Your task to perform on an android device: clear all cookies in the chrome app Image 0: 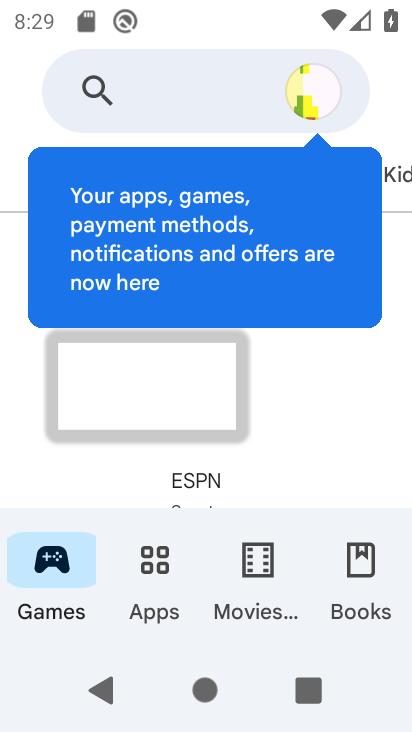
Step 0: press home button
Your task to perform on an android device: clear all cookies in the chrome app Image 1: 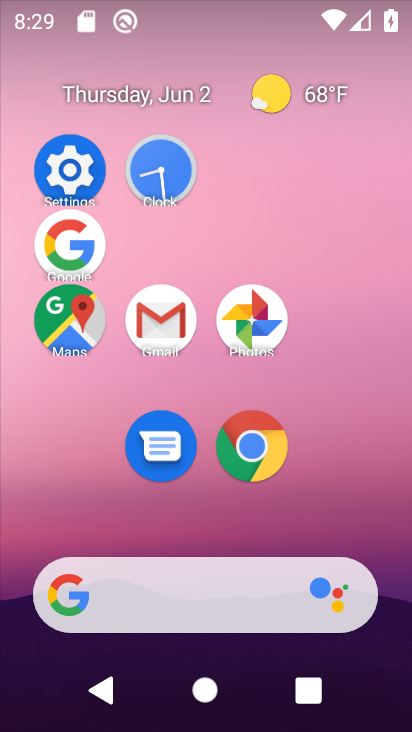
Step 1: click (246, 458)
Your task to perform on an android device: clear all cookies in the chrome app Image 2: 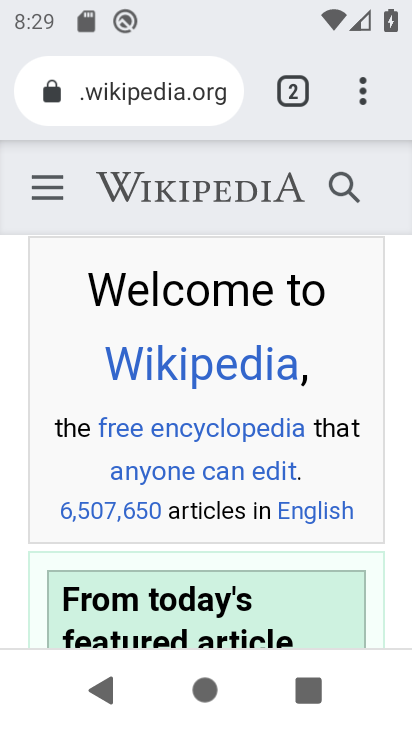
Step 2: click (362, 92)
Your task to perform on an android device: clear all cookies in the chrome app Image 3: 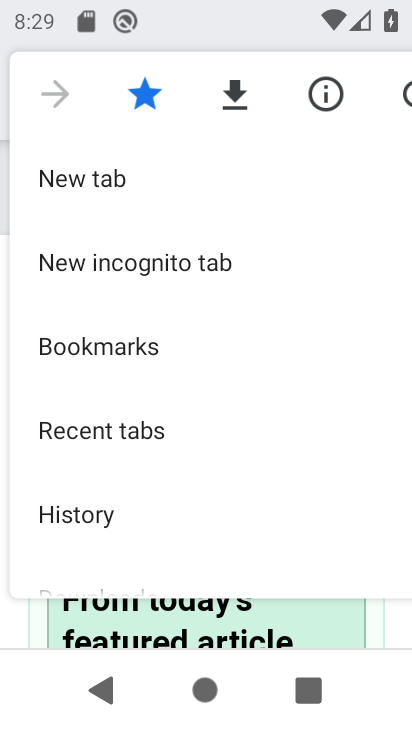
Step 3: drag from (153, 470) to (129, 180)
Your task to perform on an android device: clear all cookies in the chrome app Image 4: 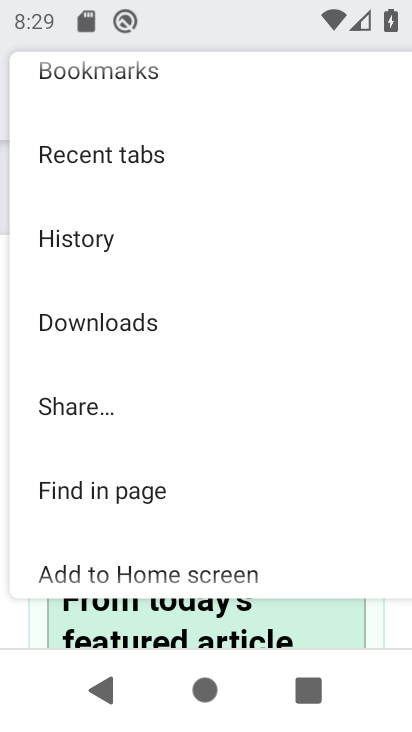
Step 4: drag from (178, 450) to (183, 144)
Your task to perform on an android device: clear all cookies in the chrome app Image 5: 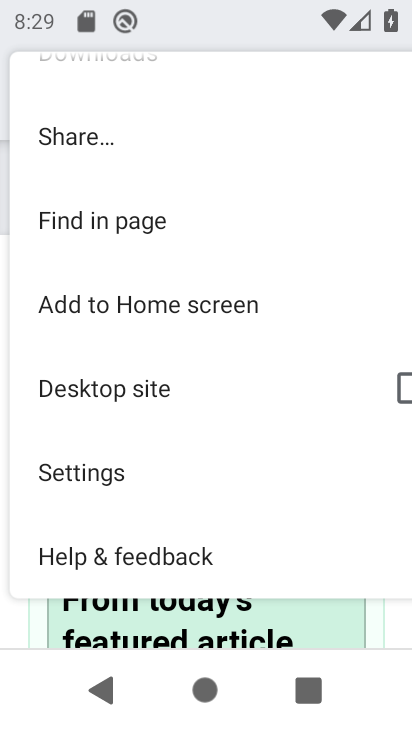
Step 5: click (183, 467)
Your task to perform on an android device: clear all cookies in the chrome app Image 6: 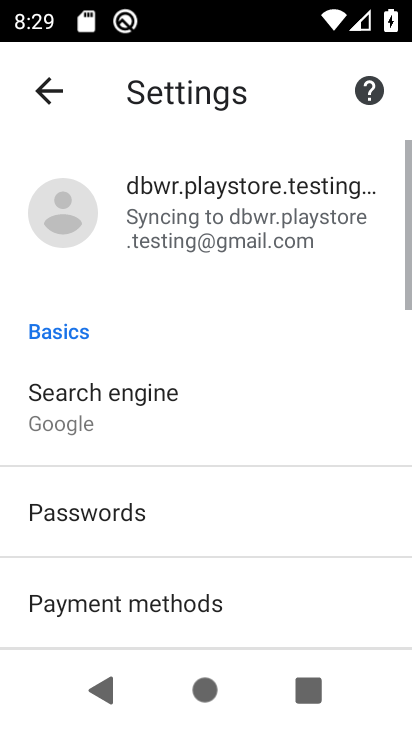
Step 6: drag from (182, 468) to (209, 128)
Your task to perform on an android device: clear all cookies in the chrome app Image 7: 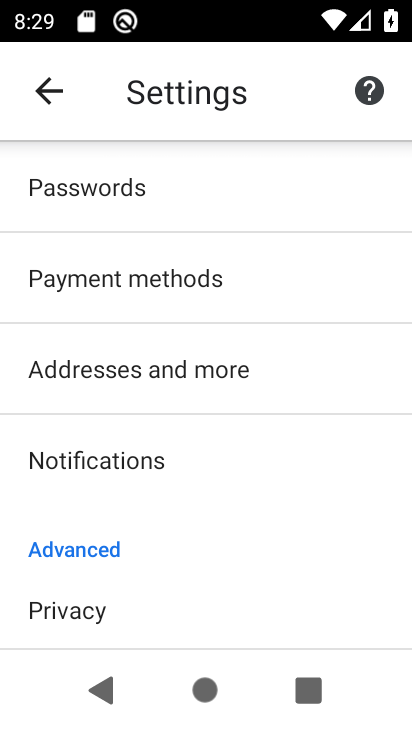
Step 7: drag from (205, 495) to (216, 218)
Your task to perform on an android device: clear all cookies in the chrome app Image 8: 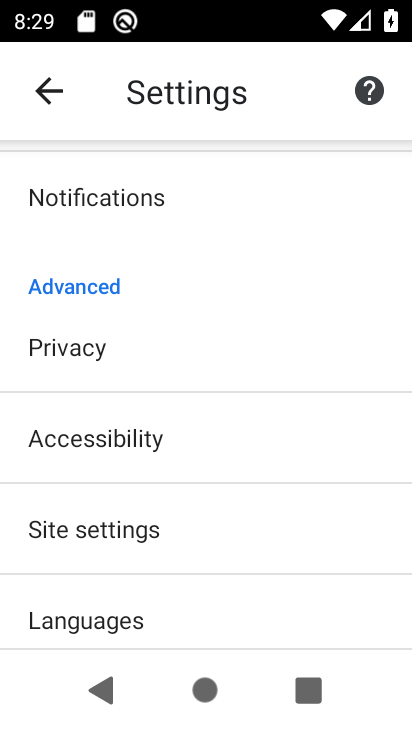
Step 8: click (176, 324)
Your task to perform on an android device: clear all cookies in the chrome app Image 9: 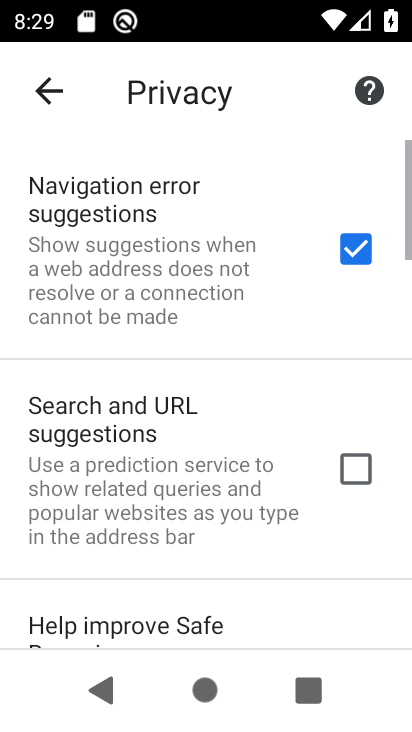
Step 9: drag from (203, 490) to (250, 138)
Your task to perform on an android device: clear all cookies in the chrome app Image 10: 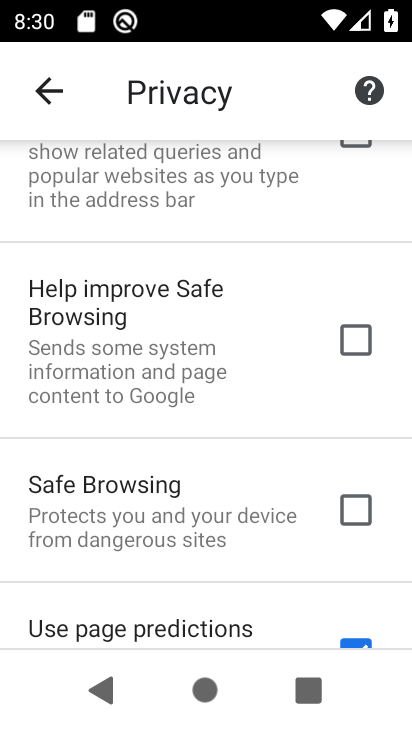
Step 10: drag from (252, 559) to (276, 184)
Your task to perform on an android device: clear all cookies in the chrome app Image 11: 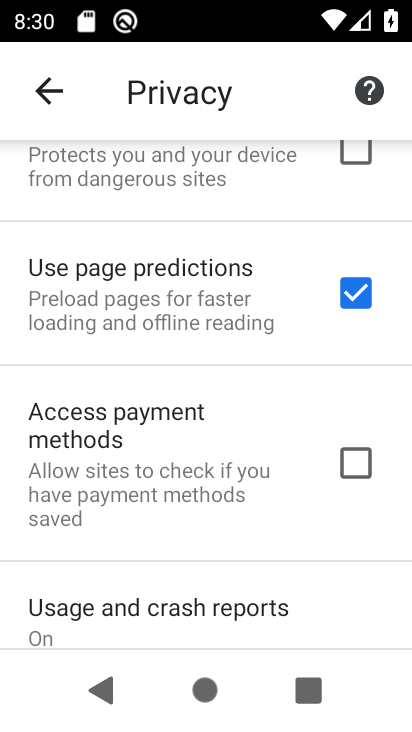
Step 11: drag from (276, 534) to (256, 170)
Your task to perform on an android device: clear all cookies in the chrome app Image 12: 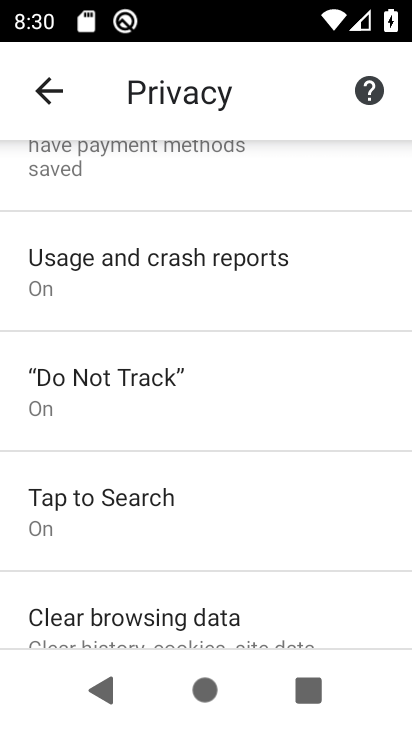
Step 12: drag from (246, 555) to (232, 216)
Your task to perform on an android device: clear all cookies in the chrome app Image 13: 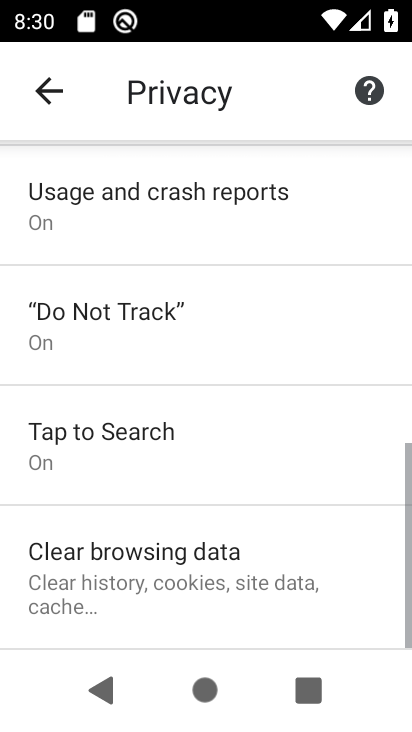
Step 13: click (246, 565)
Your task to perform on an android device: clear all cookies in the chrome app Image 14: 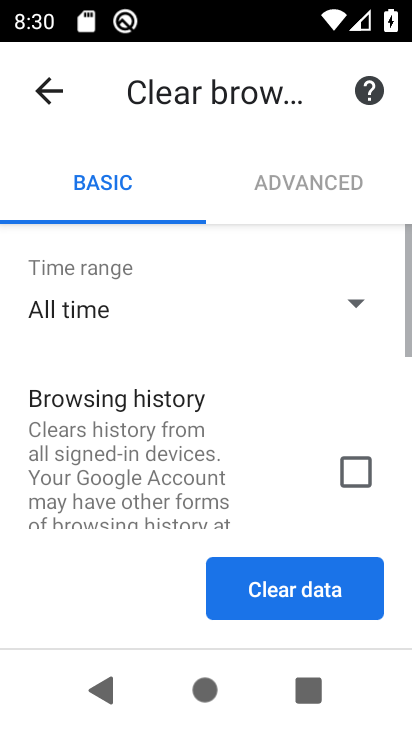
Step 14: drag from (246, 565) to (235, 216)
Your task to perform on an android device: clear all cookies in the chrome app Image 15: 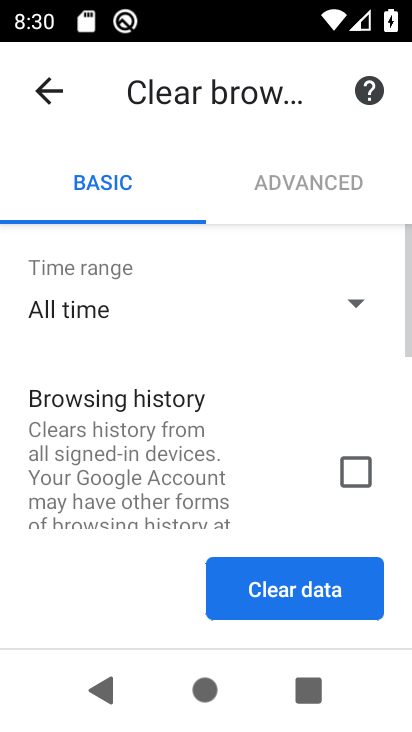
Step 15: drag from (179, 543) to (208, 244)
Your task to perform on an android device: clear all cookies in the chrome app Image 16: 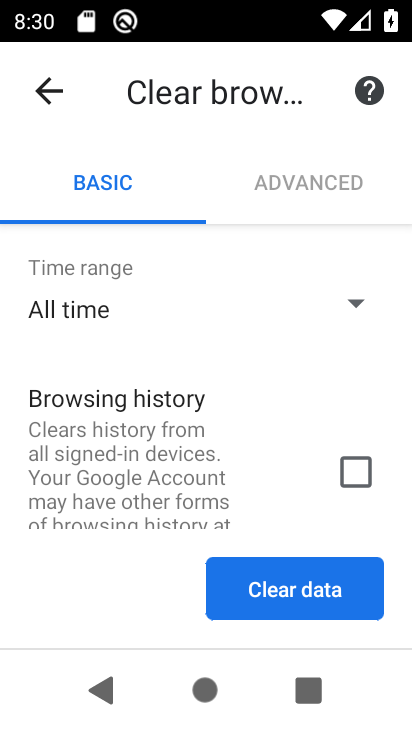
Step 16: drag from (310, 434) to (333, 197)
Your task to perform on an android device: clear all cookies in the chrome app Image 17: 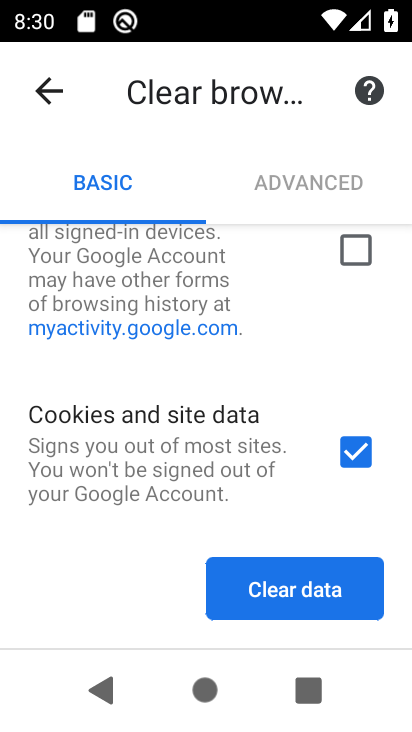
Step 17: click (308, 610)
Your task to perform on an android device: clear all cookies in the chrome app Image 18: 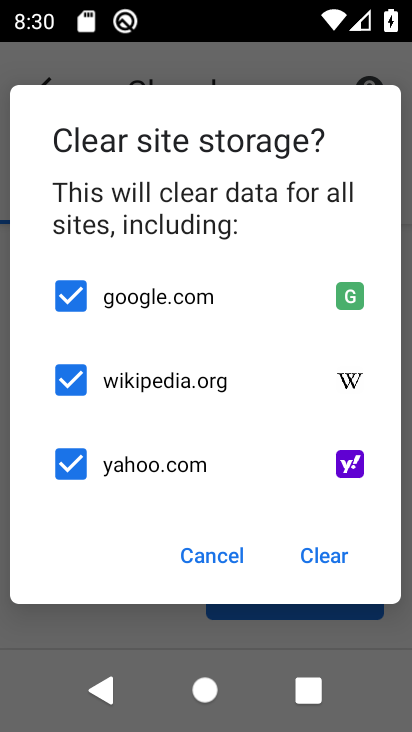
Step 18: click (344, 563)
Your task to perform on an android device: clear all cookies in the chrome app Image 19: 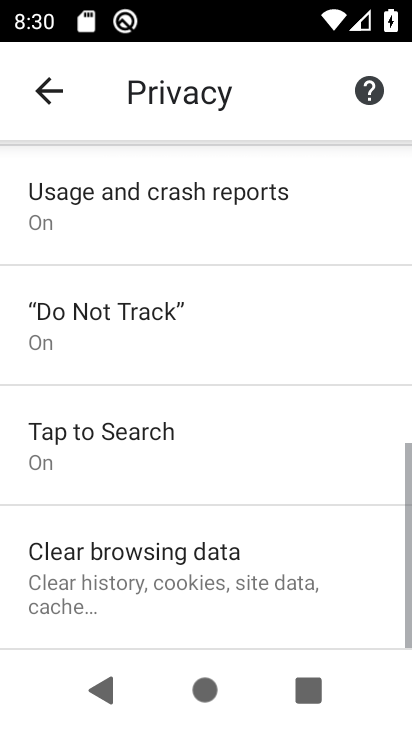
Step 19: task complete